Your task to perform on an android device: Search for pizza restaurants on Maps Image 0: 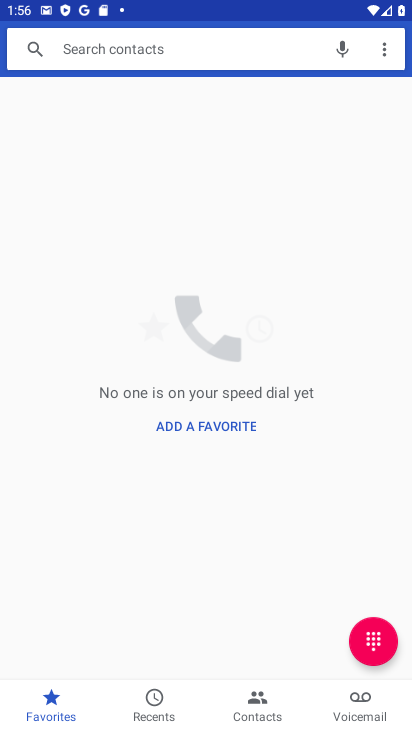
Step 0: press home button
Your task to perform on an android device: Search for pizza restaurants on Maps Image 1: 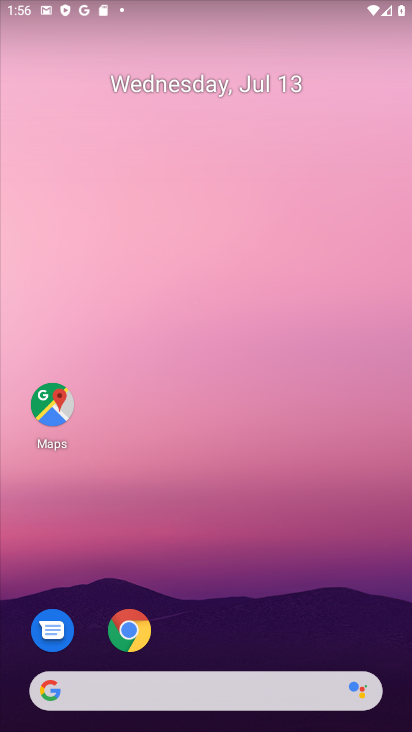
Step 1: click (54, 410)
Your task to perform on an android device: Search for pizza restaurants on Maps Image 2: 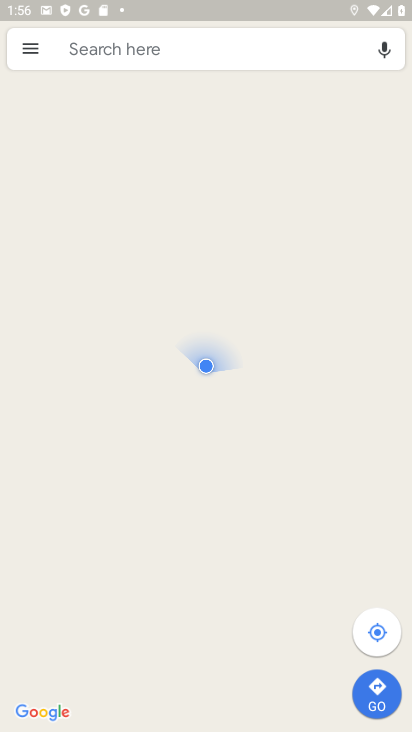
Step 2: click (169, 53)
Your task to perform on an android device: Search for pizza restaurants on Maps Image 3: 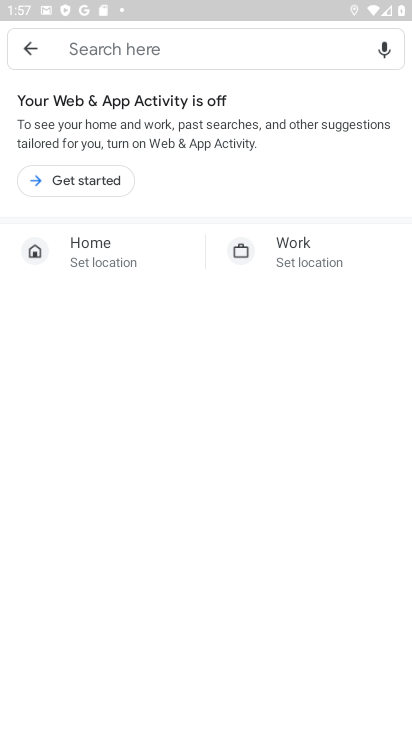
Step 3: click (58, 170)
Your task to perform on an android device: Search for pizza restaurants on Maps Image 4: 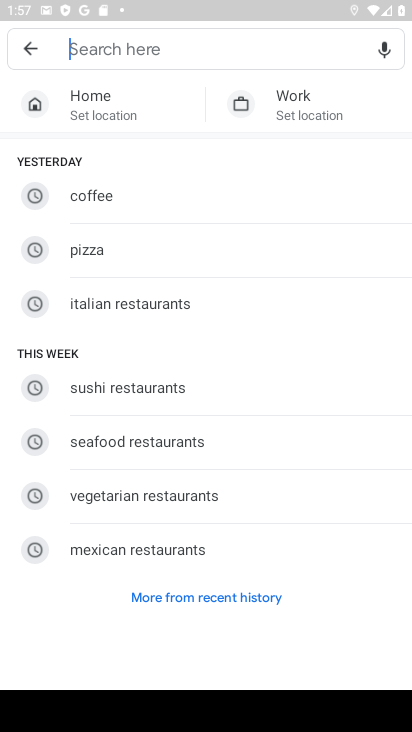
Step 4: type "pizza restaurent"
Your task to perform on an android device: Search for pizza restaurants on Maps Image 5: 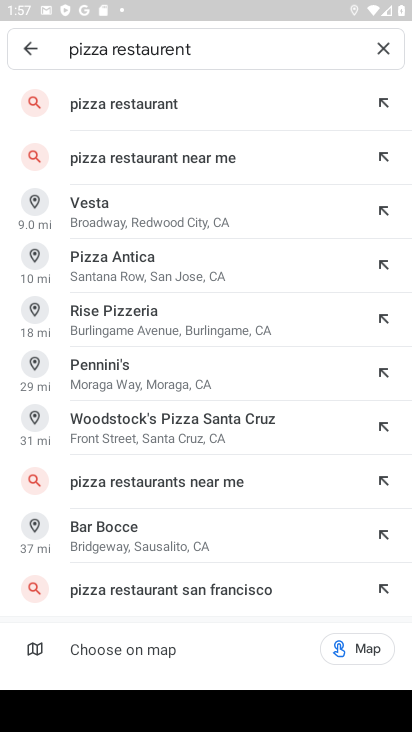
Step 5: click (222, 110)
Your task to perform on an android device: Search for pizza restaurants on Maps Image 6: 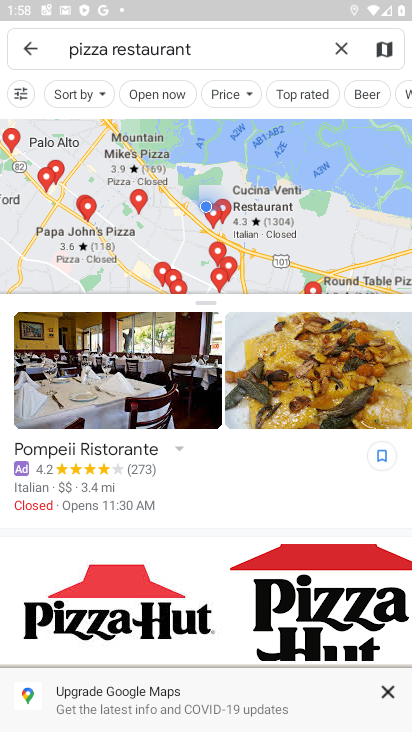
Step 6: task complete